Your task to perform on an android device: Open Google Chrome Image 0: 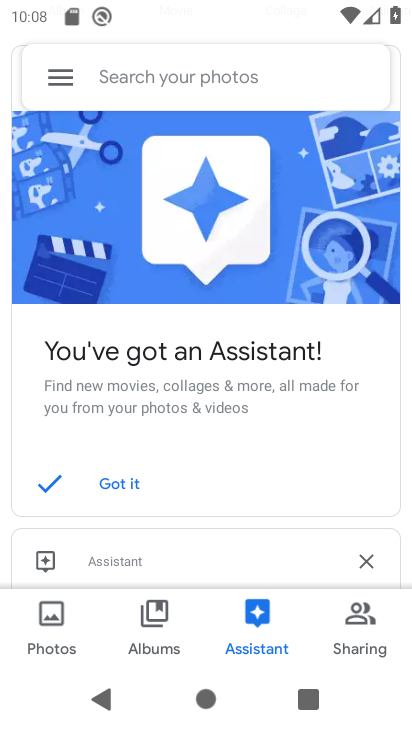
Step 0: press home button
Your task to perform on an android device: Open Google Chrome Image 1: 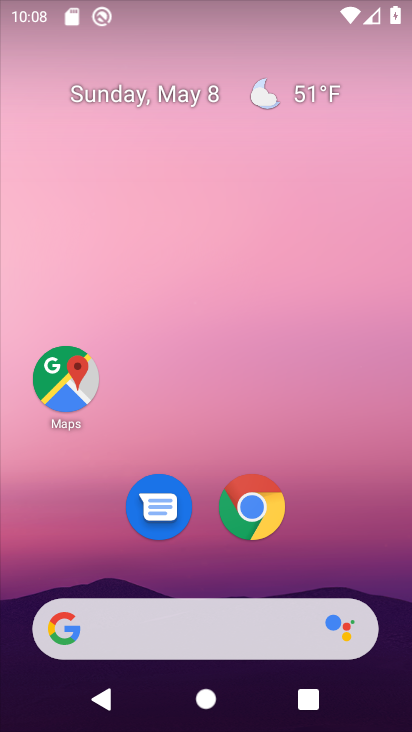
Step 1: click (249, 514)
Your task to perform on an android device: Open Google Chrome Image 2: 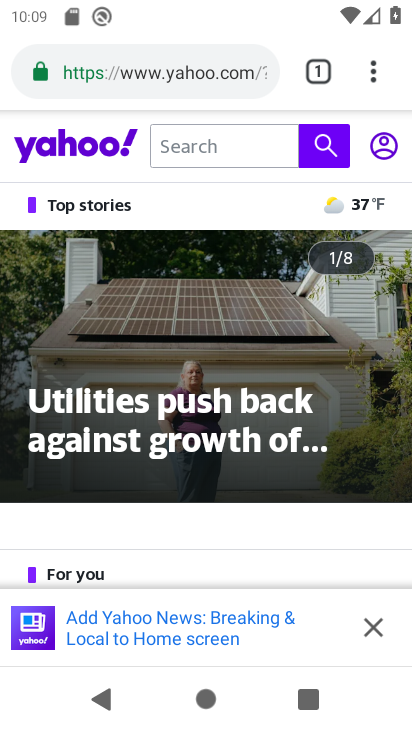
Step 2: task complete